Your task to perform on an android device: What is the news today? Image 0: 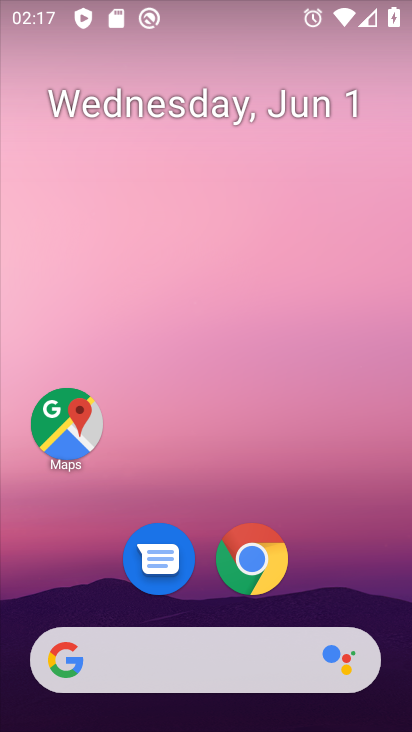
Step 0: press home button
Your task to perform on an android device: What is the news today? Image 1: 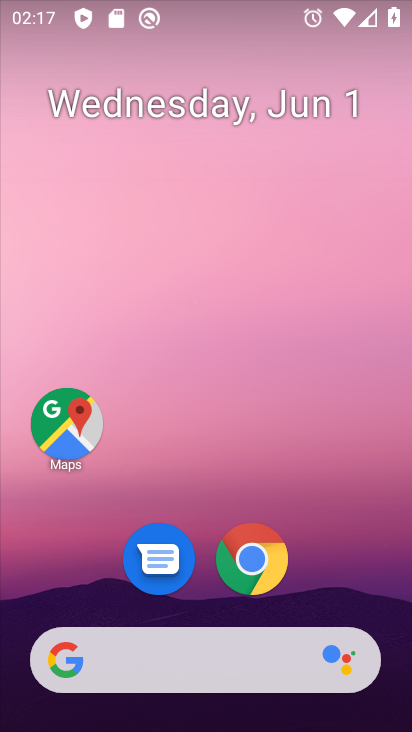
Step 1: click (57, 660)
Your task to perform on an android device: What is the news today? Image 2: 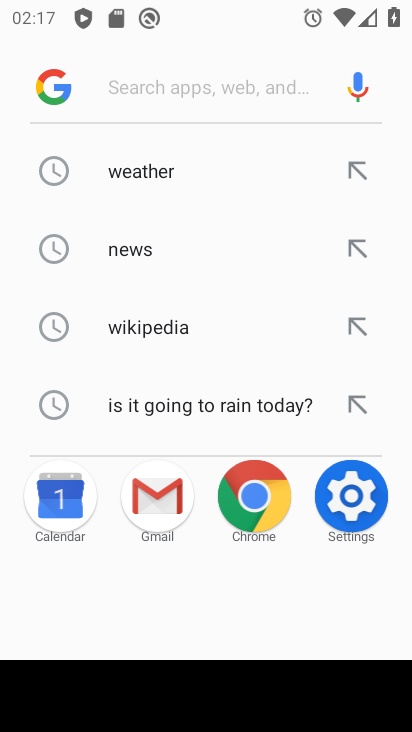
Step 2: type "news today?"
Your task to perform on an android device: What is the news today? Image 3: 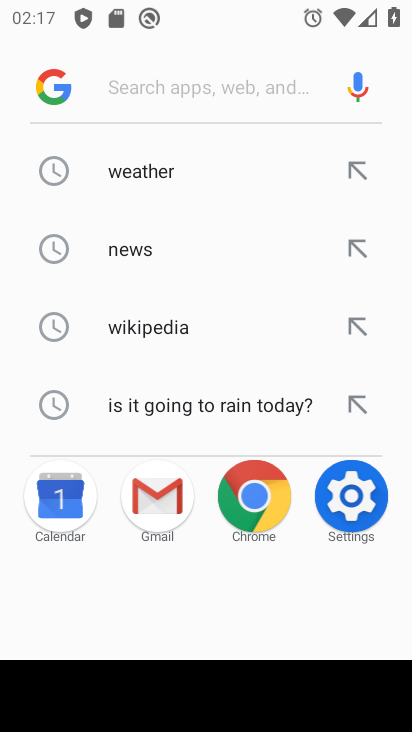
Step 3: click (170, 78)
Your task to perform on an android device: What is the news today? Image 4: 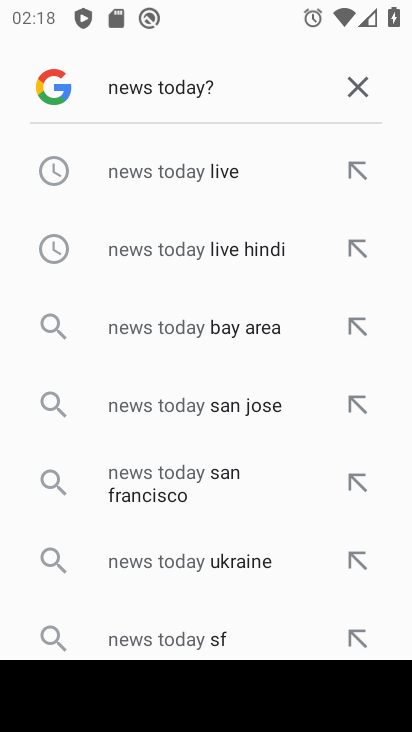
Step 4: click (232, 81)
Your task to perform on an android device: What is the news today? Image 5: 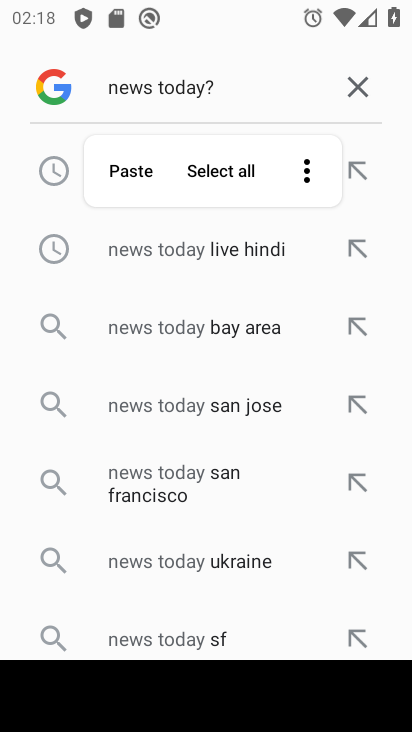
Step 5: type "news"
Your task to perform on an android device: What is the news today? Image 6: 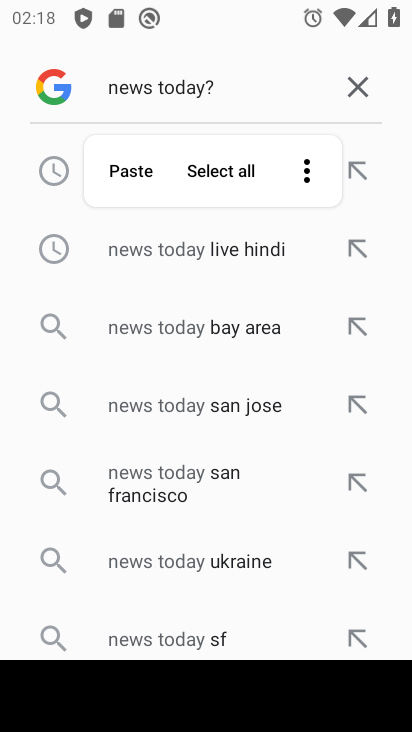
Step 6: click (361, 82)
Your task to perform on an android device: What is the news today? Image 7: 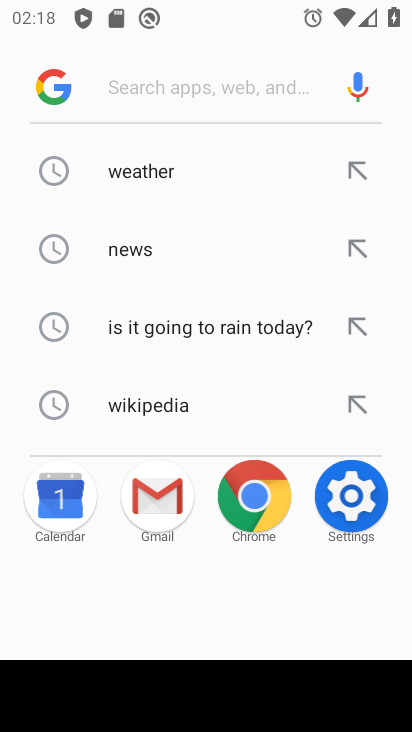
Step 7: type "news today"
Your task to perform on an android device: What is the news today? Image 8: 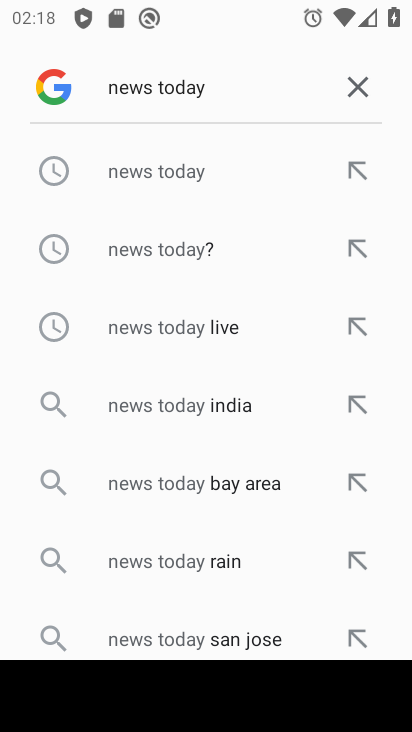
Step 8: click (172, 175)
Your task to perform on an android device: What is the news today? Image 9: 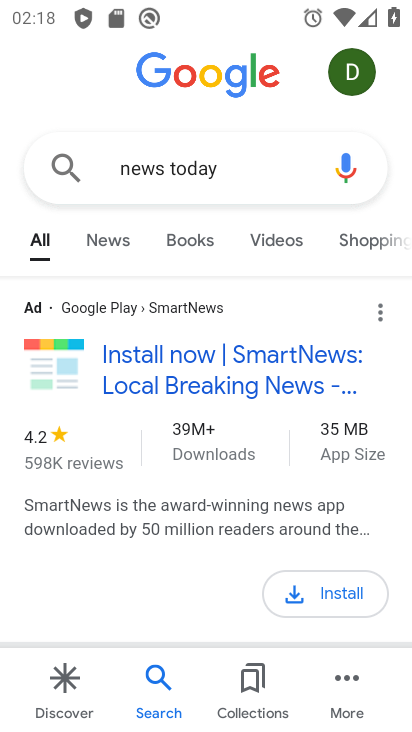
Step 9: task complete